Your task to perform on an android device: Go to Google Image 0: 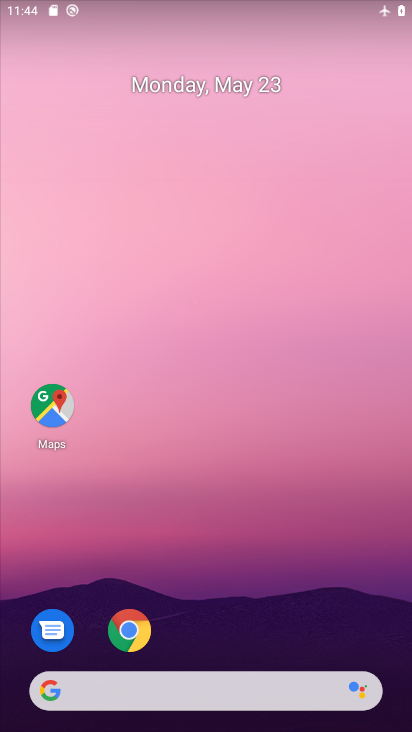
Step 0: click (44, 684)
Your task to perform on an android device: Go to Google Image 1: 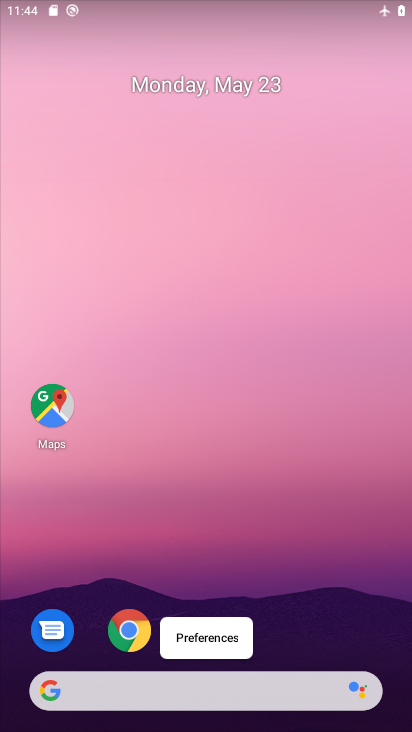
Step 1: click (50, 687)
Your task to perform on an android device: Go to Google Image 2: 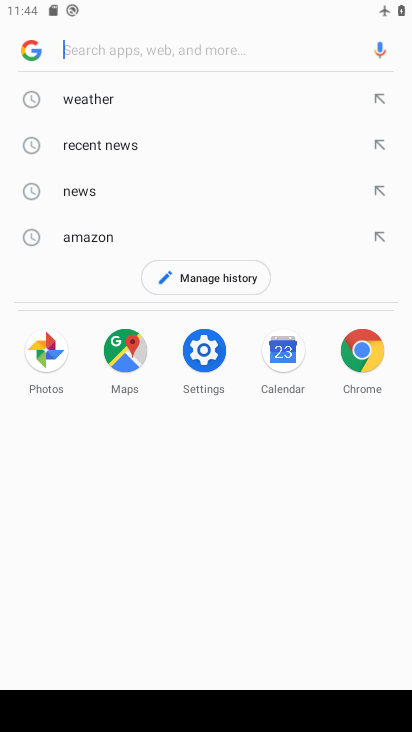
Step 2: click (26, 47)
Your task to perform on an android device: Go to Google Image 3: 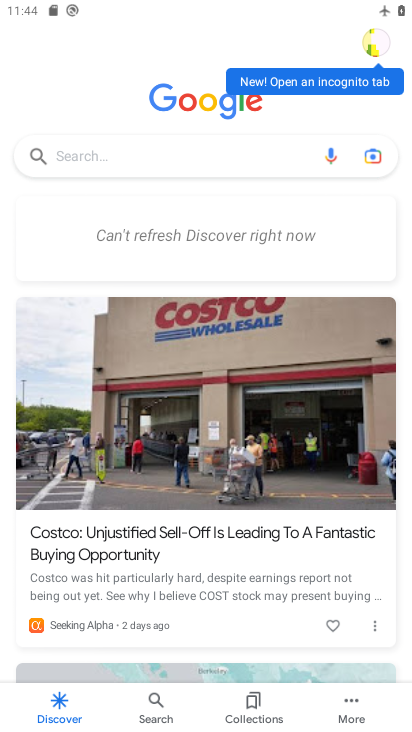
Step 3: task complete